Your task to perform on an android device: Search for macbook pro on newegg, select the first entry, add it to the cart, then select checkout. Image 0: 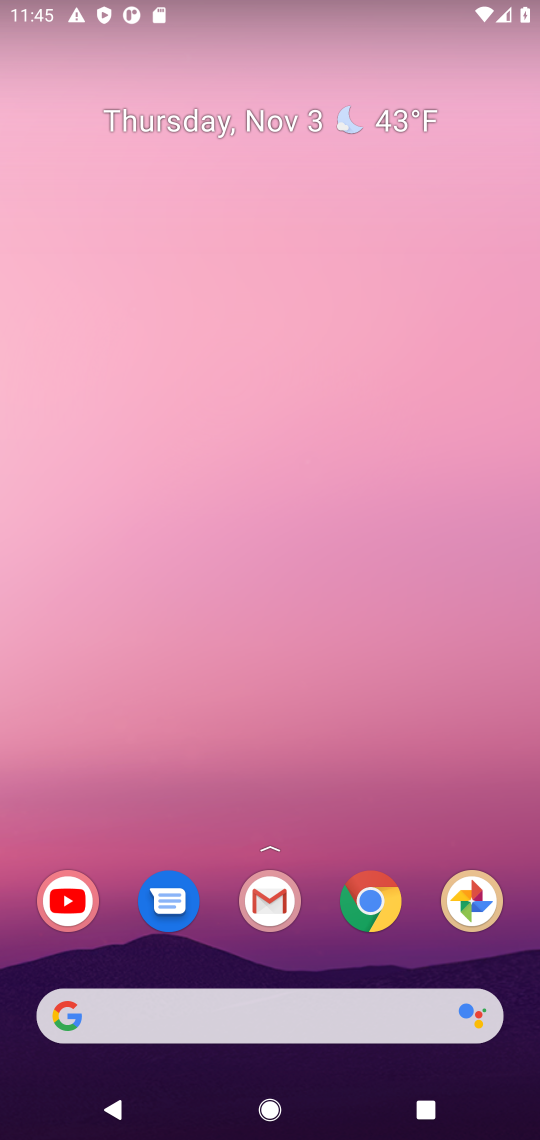
Step 0: click (372, 890)
Your task to perform on an android device: Search for macbook pro on newegg, select the first entry, add it to the cart, then select checkout. Image 1: 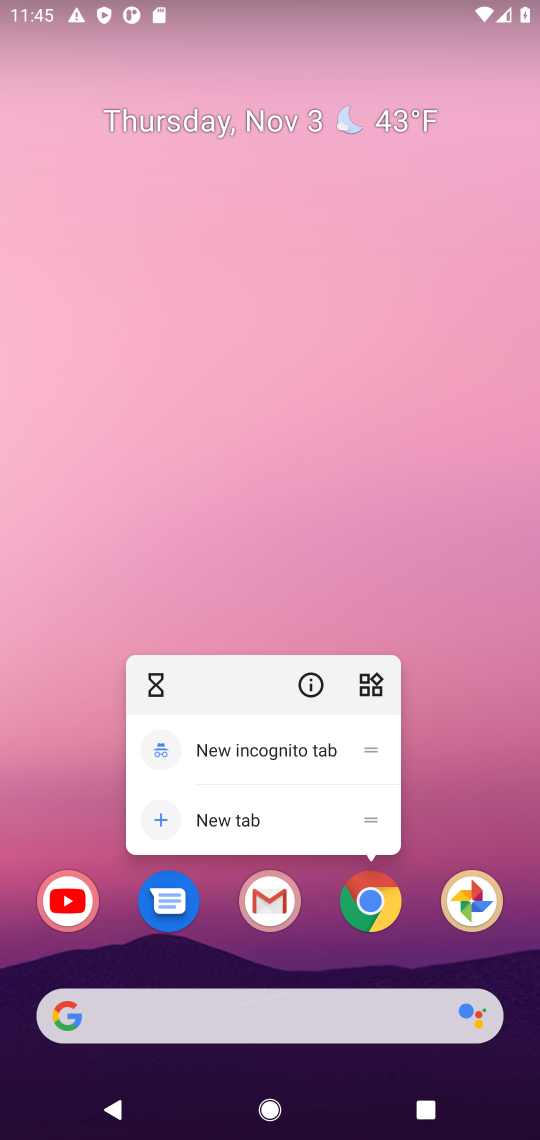
Step 1: click (372, 890)
Your task to perform on an android device: Search for macbook pro on newegg, select the first entry, add it to the cart, then select checkout. Image 2: 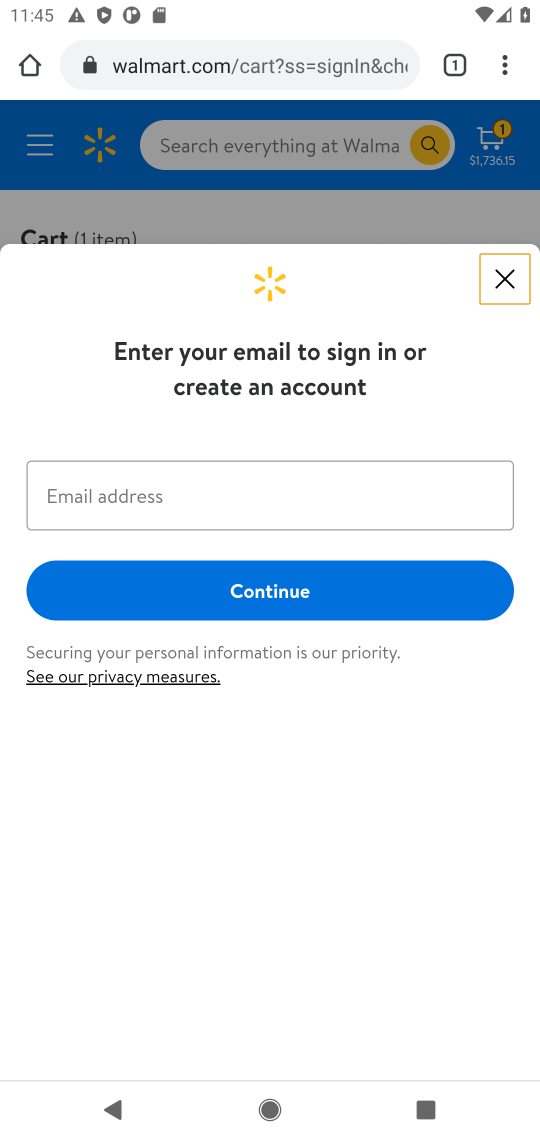
Step 2: click (35, 61)
Your task to perform on an android device: Search for macbook pro on newegg, select the first entry, add it to the cart, then select checkout. Image 3: 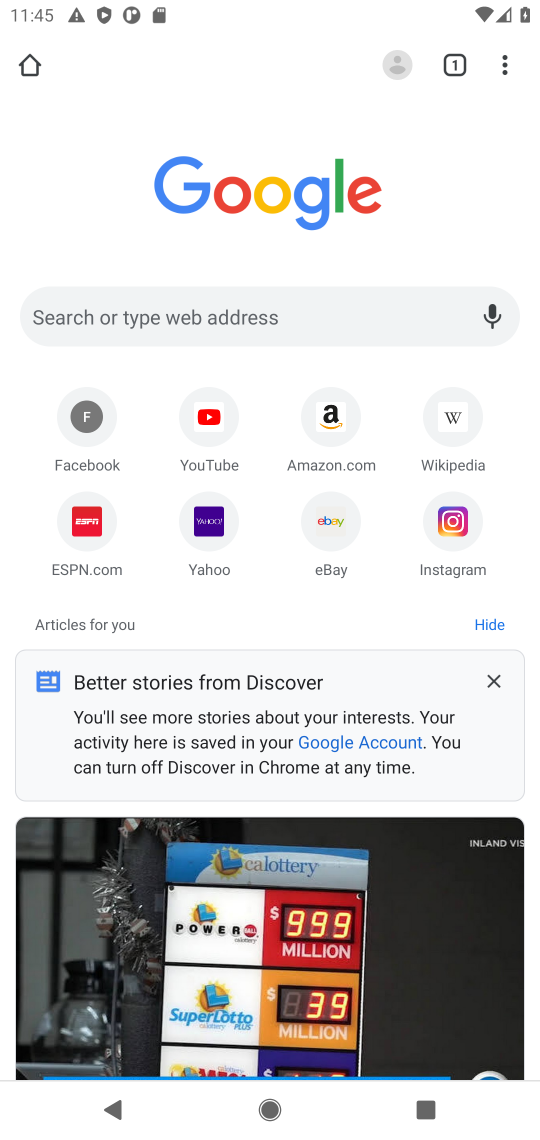
Step 3: click (384, 312)
Your task to perform on an android device: Search for macbook pro on newegg, select the first entry, add it to the cart, then select checkout. Image 4: 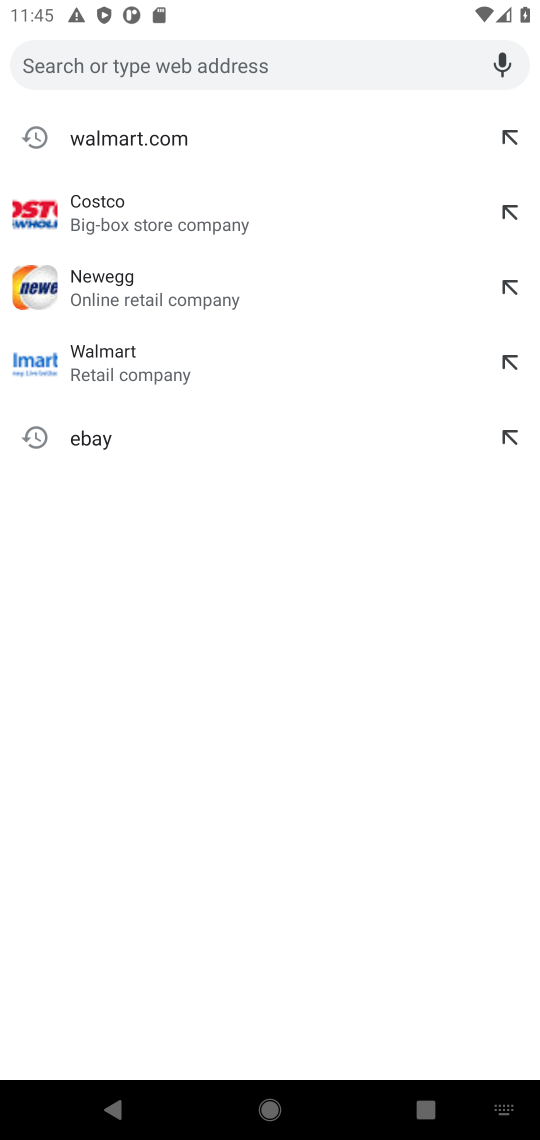
Step 4: type "newegg"
Your task to perform on an android device: Search for macbook pro on newegg, select the first entry, add it to the cart, then select checkout. Image 5: 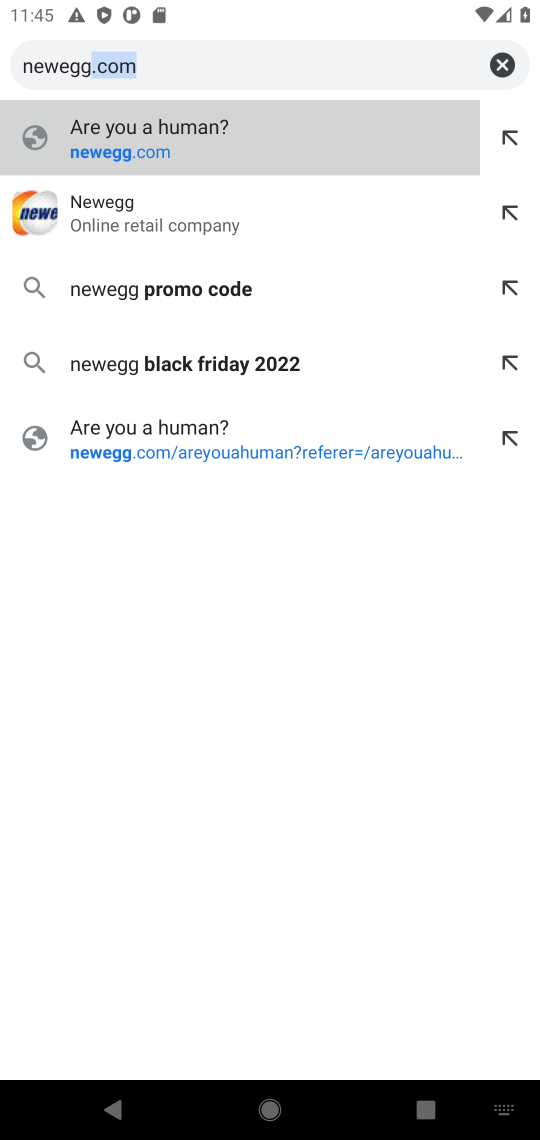
Step 5: click (291, 61)
Your task to perform on an android device: Search for macbook pro on newegg, select the first entry, add it to the cart, then select checkout. Image 6: 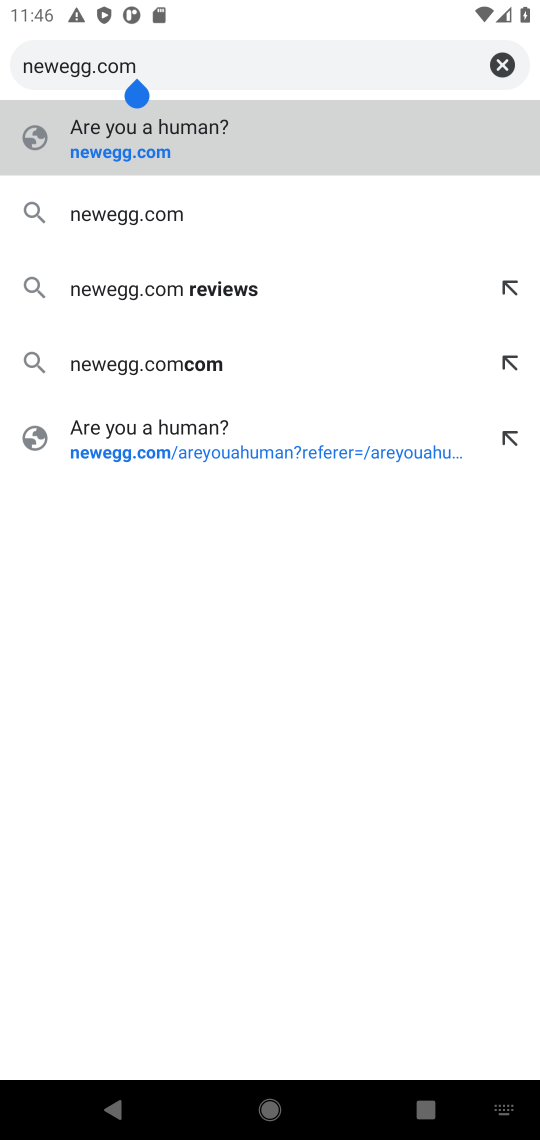
Step 6: click (163, 216)
Your task to perform on an android device: Search for macbook pro on newegg, select the first entry, add it to the cart, then select checkout. Image 7: 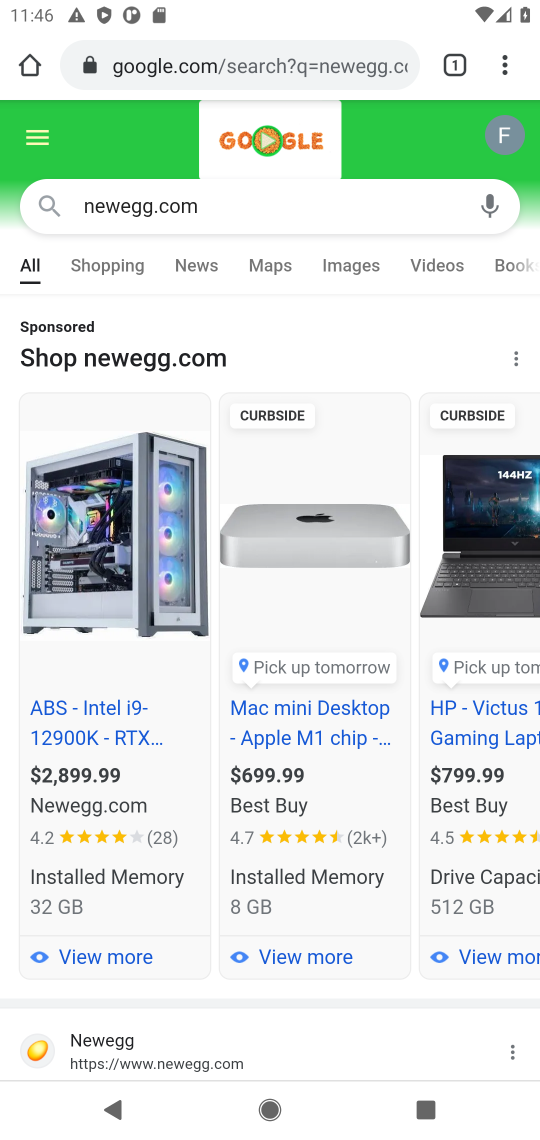
Step 7: drag from (294, 919) to (275, 548)
Your task to perform on an android device: Search for macbook pro on newegg, select the first entry, add it to the cart, then select checkout. Image 8: 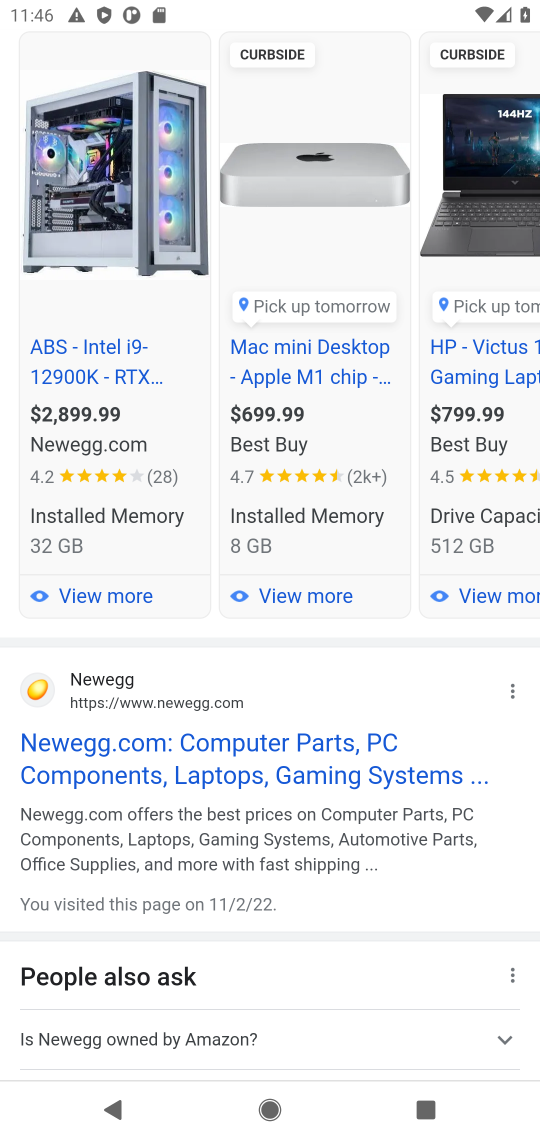
Step 8: click (223, 706)
Your task to perform on an android device: Search for macbook pro on newegg, select the first entry, add it to the cart, then select checkout. Image 9: 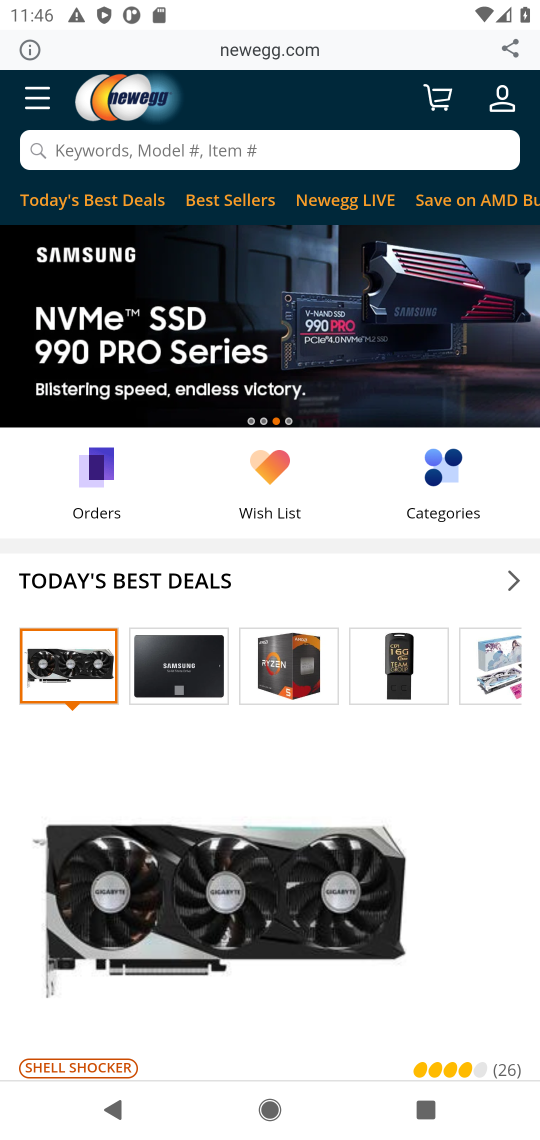
Step 9: click (304, 147)
Your task to perform on an android device: Search for macbook pro on newegg, select the first entry, add it to the cart, then select checkout. Image 10: 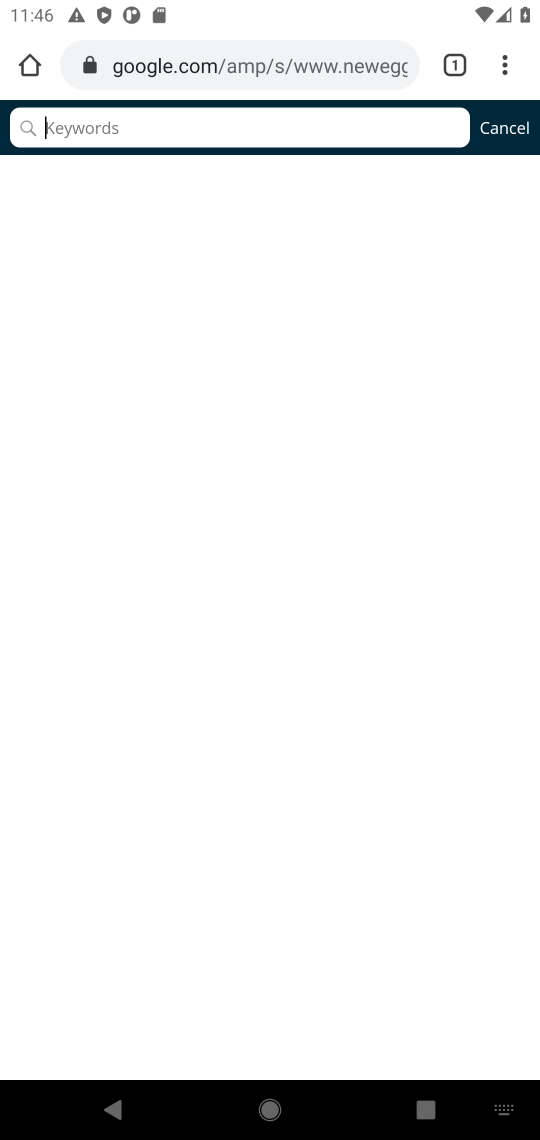
Step 10: type "macbook pro"
Your task to perform on an android device: Search for macbook pro on newegg, select the first entry, add it to the cart, then select checkout. Image 11: 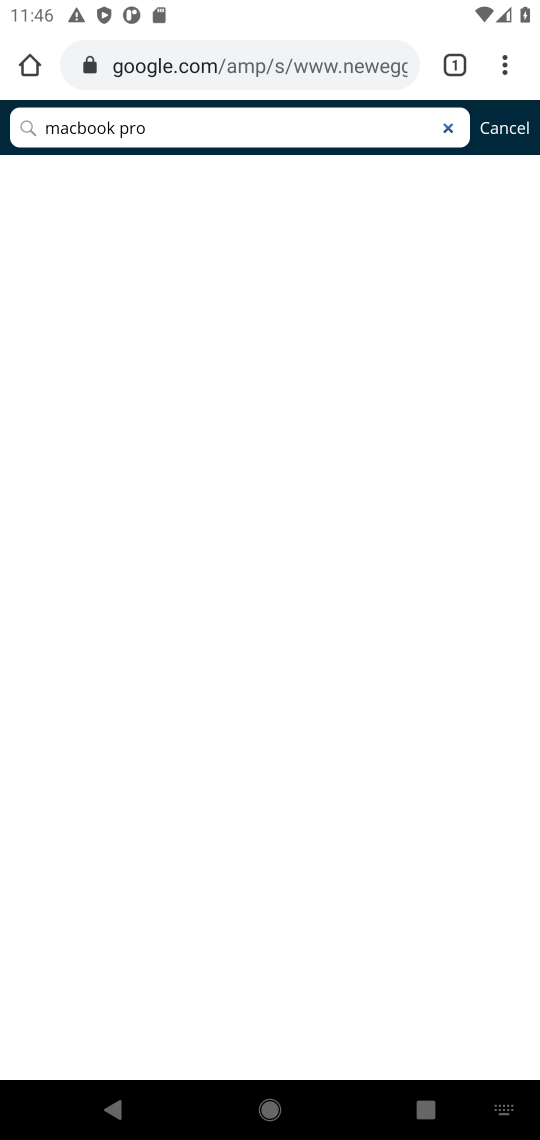
Step 11: click (366, 317)
Your task to perform on an android device: Search for macbook pro on newegg, select the first entry, add it to the cart, then select checkout. Image 12: 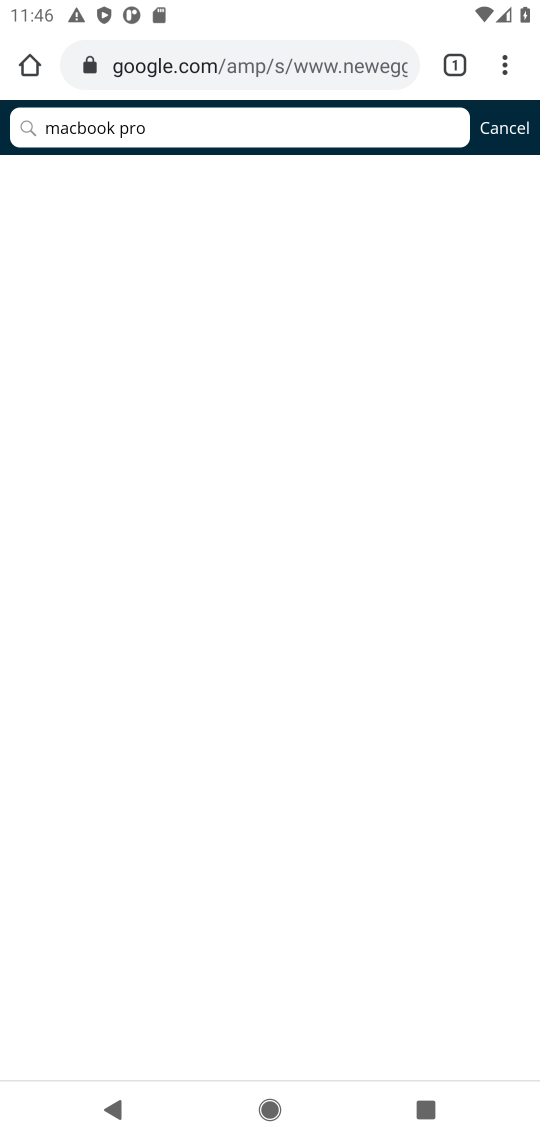
Step 12: task complete